Your task to perform on an android device: check out phone information Image 0: 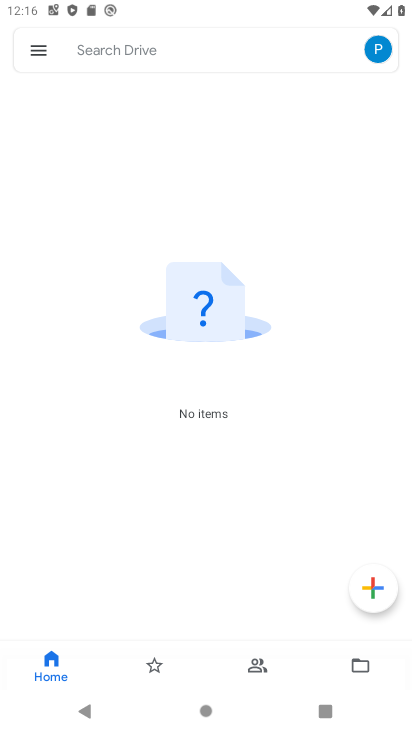
Step 0: press home button
Your task to perform on an android device: check out phone information Image 1: 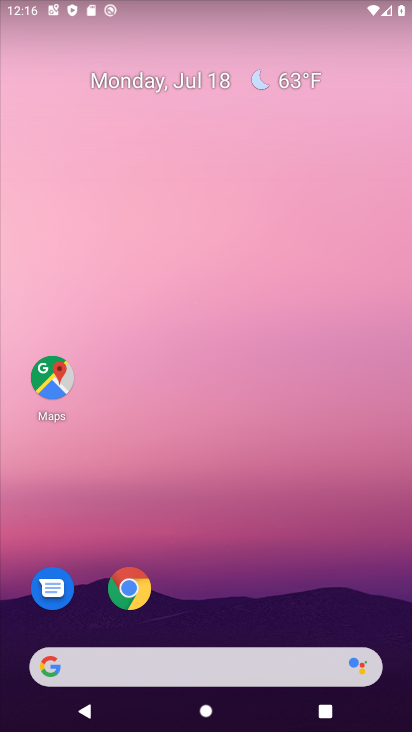
Step 1: drag from (231, 690) to (224, 263)
Your task to perform on an android device: check out phone information Image 2: 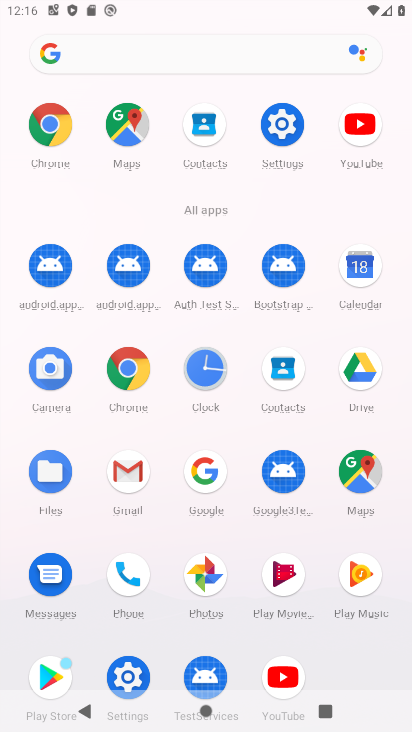
Step 2: click (132, 666)
Your task to perform on an android device: check out phone information Image 3: 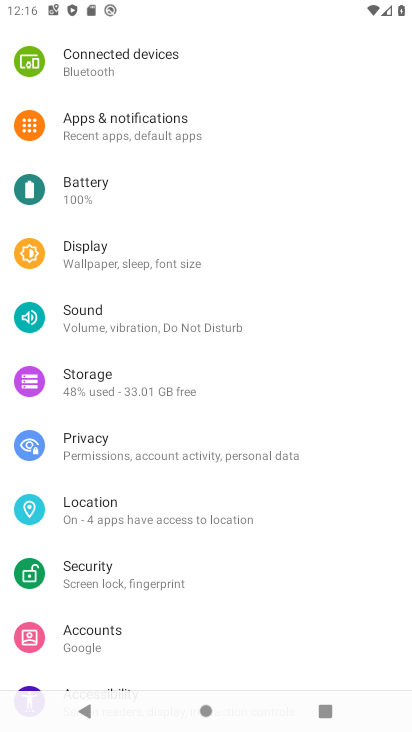
Step 3: drag from (99, 663) to (90, 256)
Your task to perform on an android device: check out phone information Image 4: 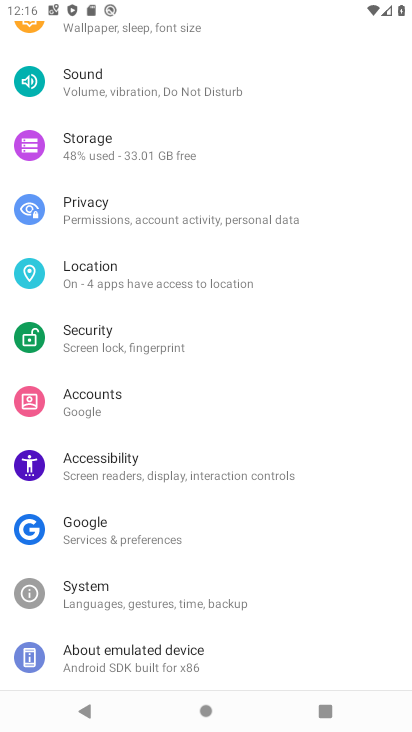
Step 4: click (140, 655)
Your task to perform on an android device: check out phone information Image 5: 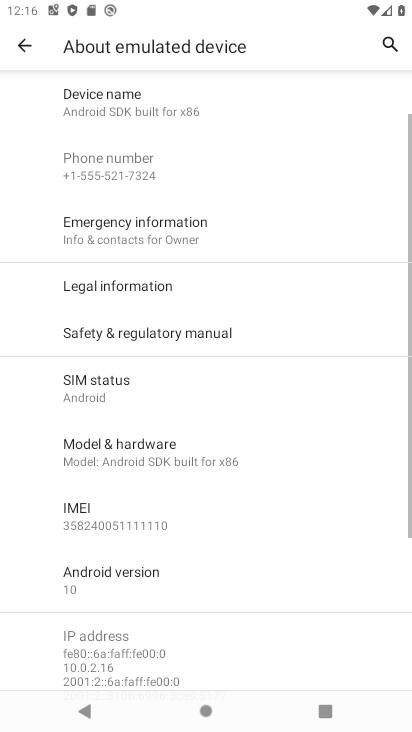
Step 5: task complete